Your task to perform on an android device: open sync settings in chrome Image 0: 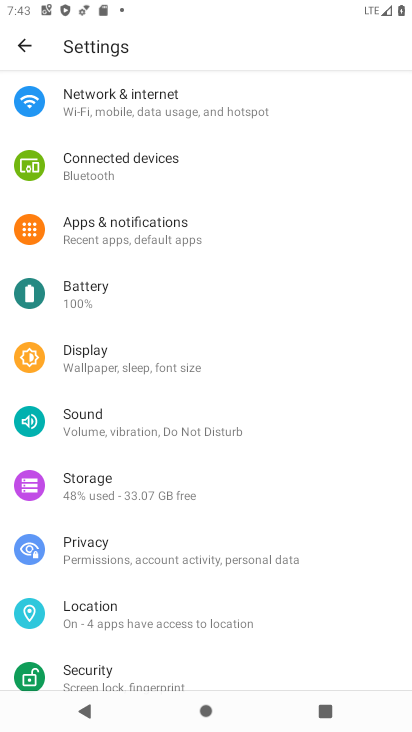
Step 0: press back button
Your task to perform on an android device: open sync settings in chrome Image 1: 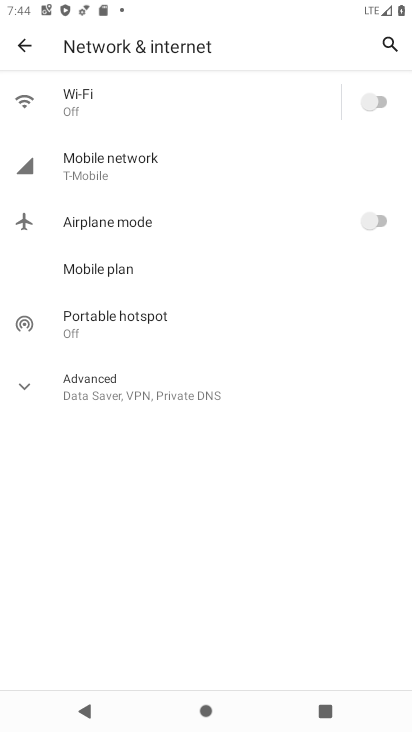
Step 1: press back button
Your task to perform on an android device: open sync settings in chrome Image 2: 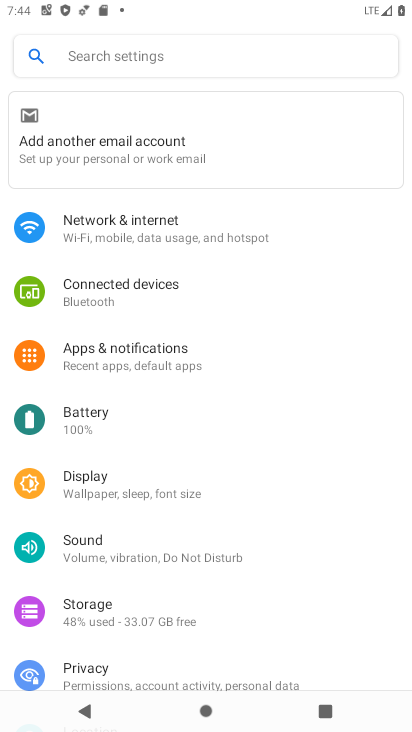
Step 2: press back button
Your task to perform on an android device: open sync settings in chrome Image 3: 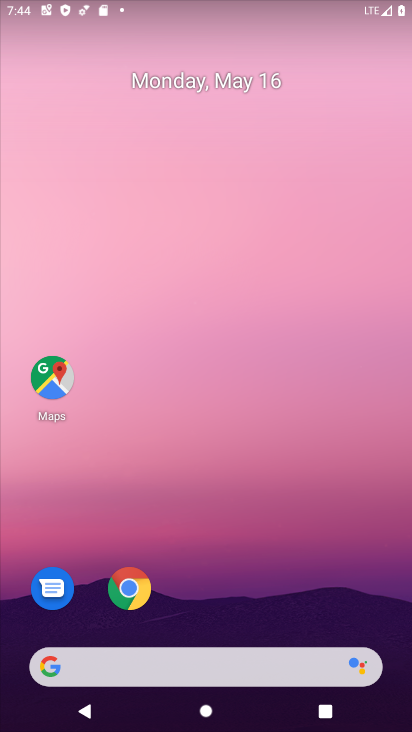
Step 3: drag from (206, 582) to (197, 25)
Your task to perform on an android device: open sync settings in chrome Image 4: 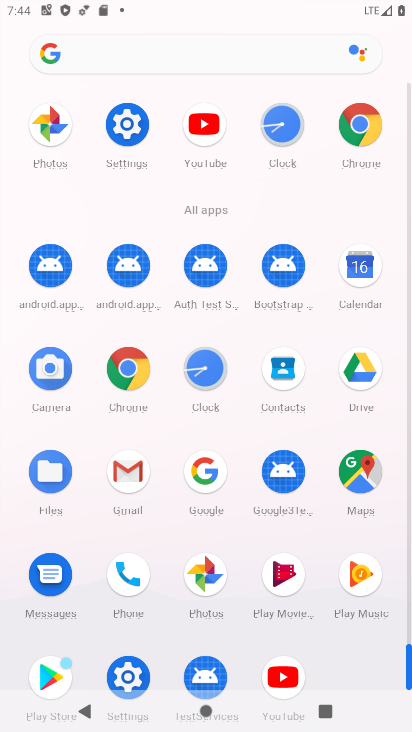
Step 4: click (130, 368)
Your task to perform on an android device: open sync settings in chrome Image 5: 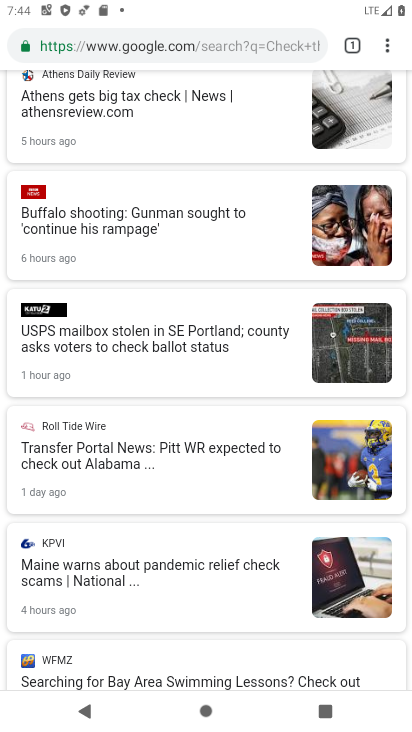
Step 5: drag from (389, 39) to (269, 506)
Your task to perform on an android device: open sync settings in chrome Image 6: 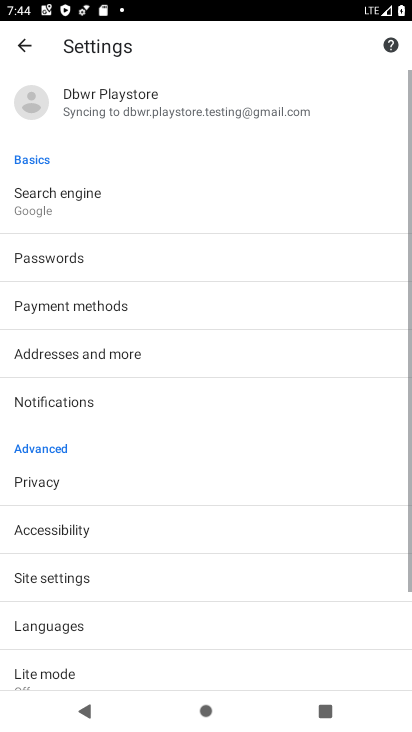
Step 6: click (109, 96)
Your task to perform on an android device: open sync settings in chrome Image 7: 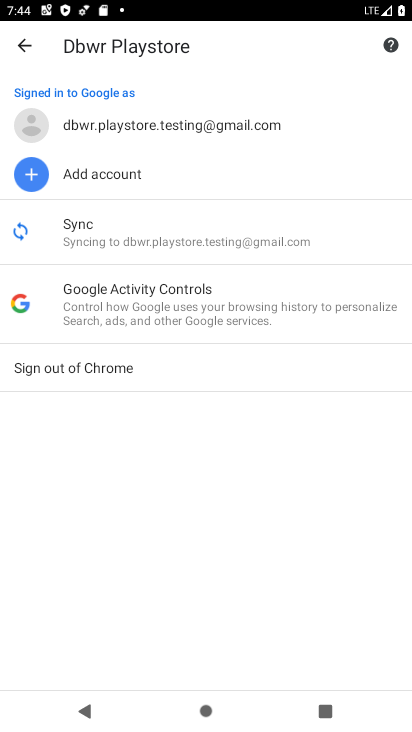
Step 7: click (157, 226)
Your task to perform on an android device: open sync settings in chrome Image 8: 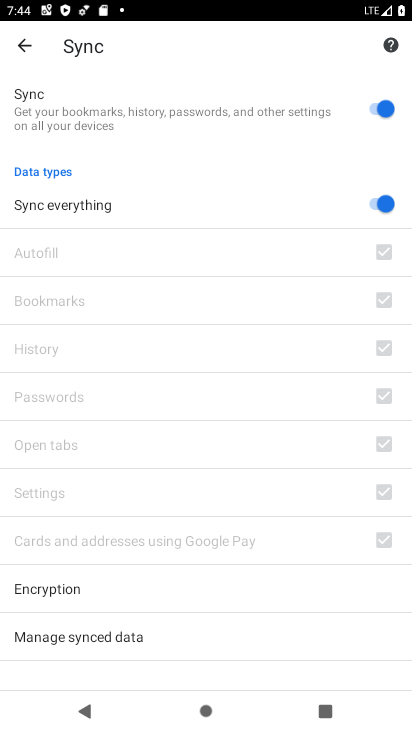
Step 8: task complete